Your task to perform on an android device: Open Chrome and go to the settings page Image 0: 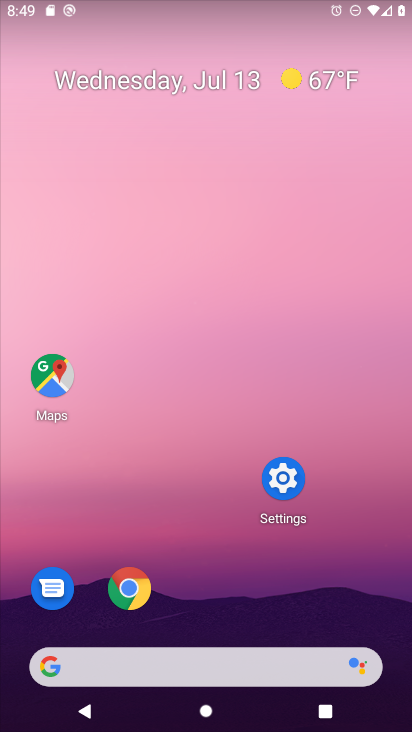
Step 0: click (281, 483)
Your task to perform on an android device: Open Chrome and go to the settings page Image 1: 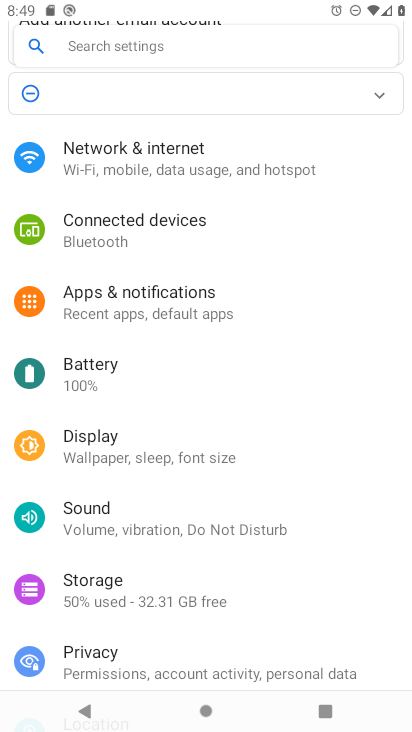
Step 1: press home button
Your task to perform on an android device: Open Chrome and go to the settings page Image 2: 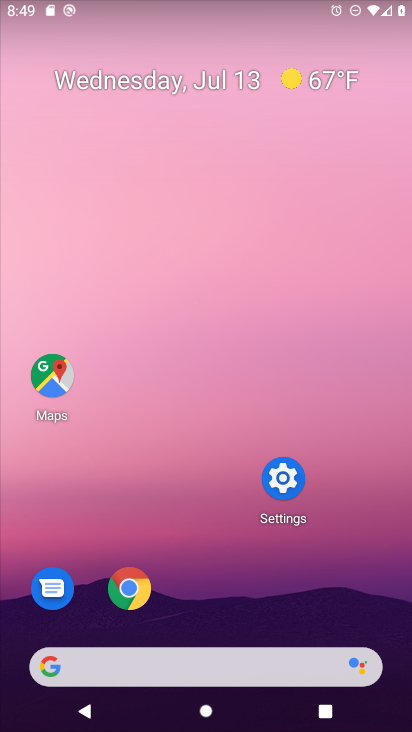
Step 2: click (136, 600)
Your task to perform on an android device: Open Chrome and go to the settings page Image 3: 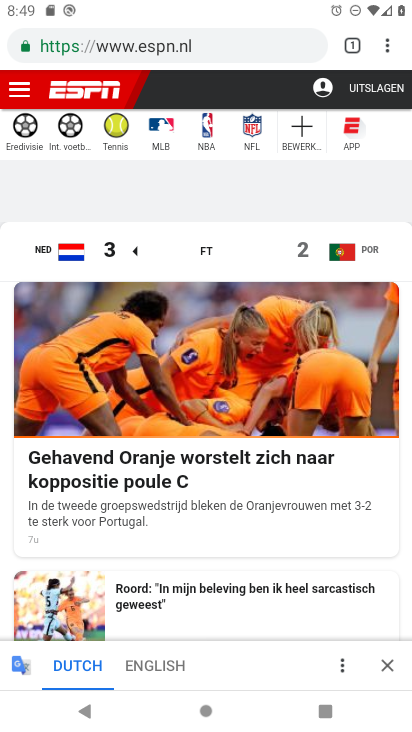
Step 3: click (390, 46)
Your task to perform on an android device: Open Chrome and go to the settings page Image 4: 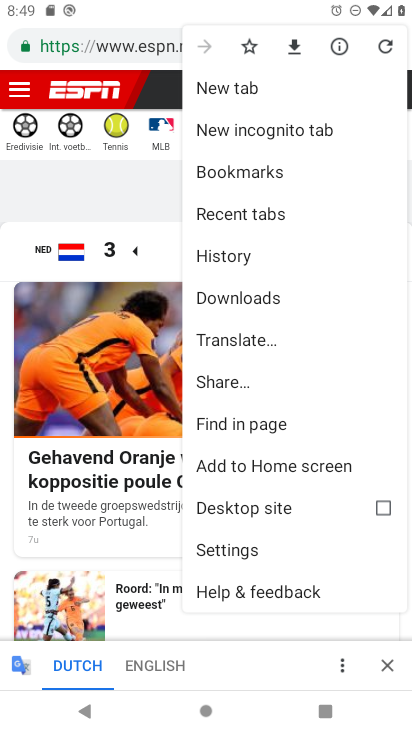
Step 4: click (229, 545)
Your task to perform on an android device: Open Chrome and go to the settings page Image 5: 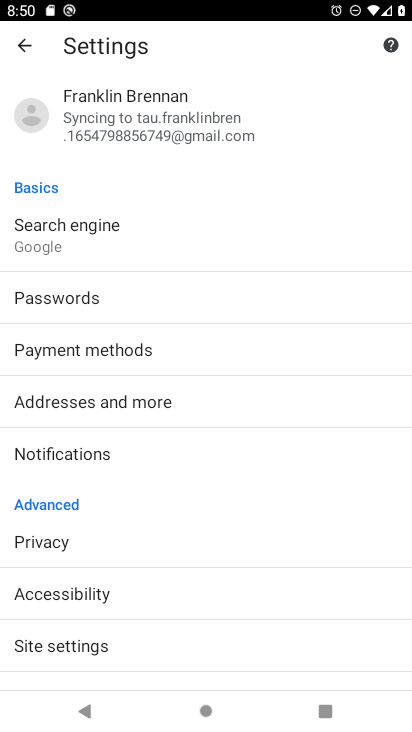
Step 5: task complete